Your task to perform on an android device: Open battery settings Image 0: 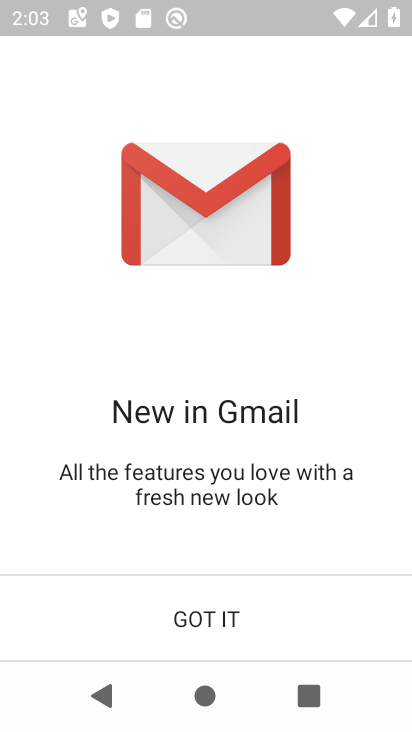
Step 0: press home button
Your task to perform on an android device: Open battery settings Image 1: 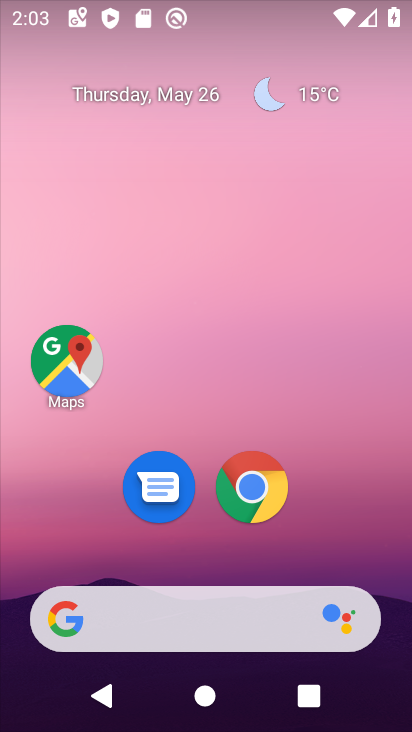
Step 1: drag from (218, 558) to (198, 183)
Your task to perform on an android device: Open battery settings Image 2: 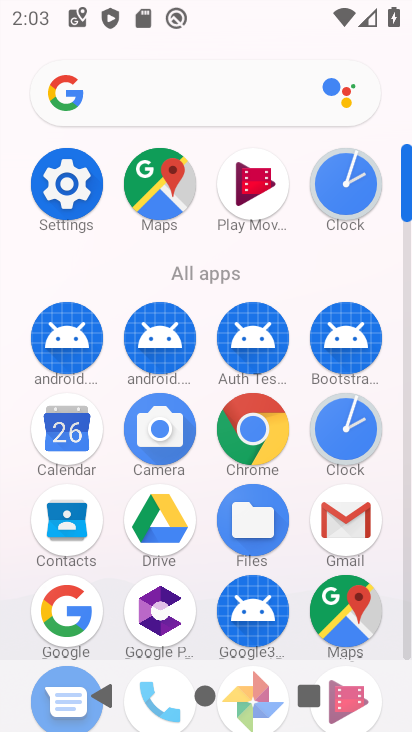
Step 2: click (48, 202)
Your task to perform on an android device: Open battery settings Image 3: 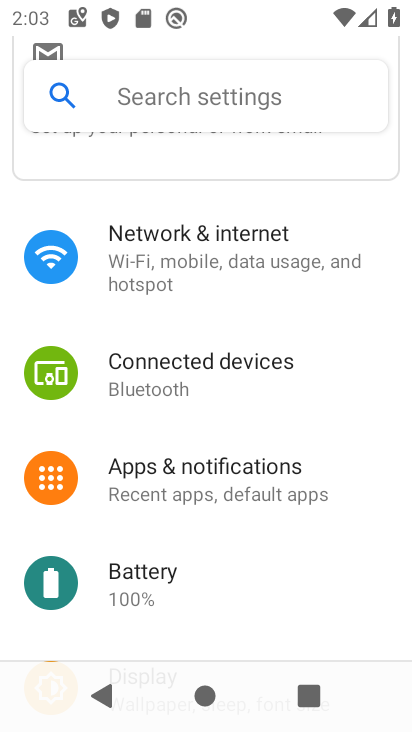
Step 3: click (153, 573)
Your task to perform on an android device: Open battery settings Image 4: 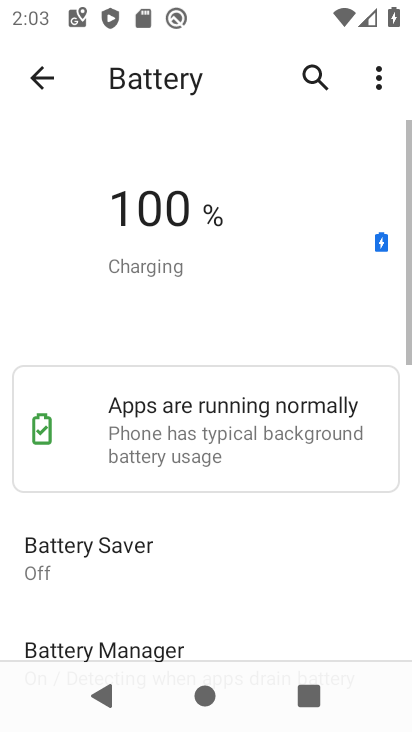
Step 4: click (363, 87)
Your task to perform on an android device: Open battery settings Image 5: 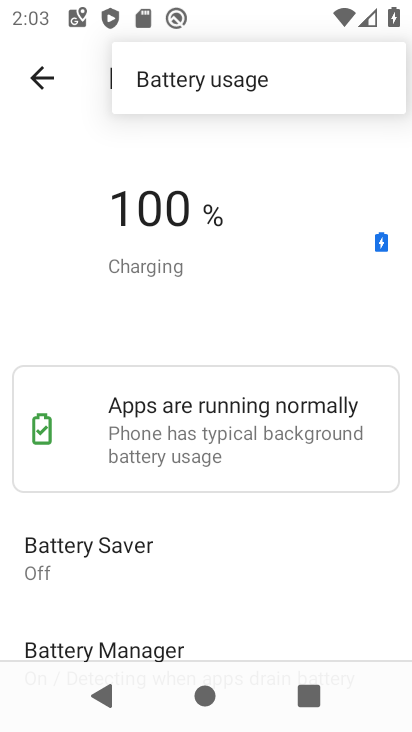
Step 5: click (246, 466)
Your task to perform on an android device: Open battery settings Image 6: 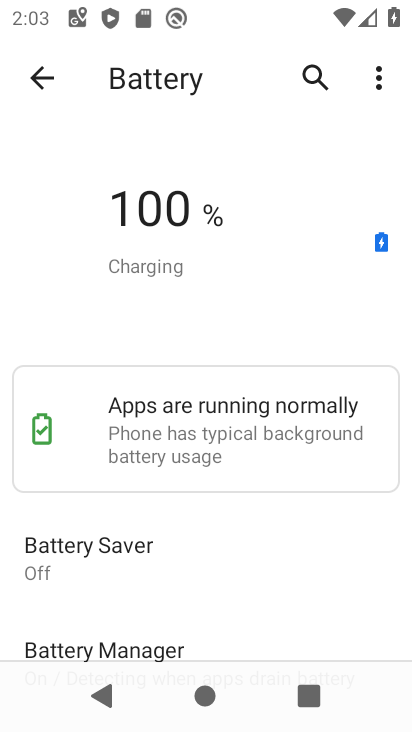
Step 6: task complete